Your task to perform on an android device: install app "LinkedIn" Image 0: 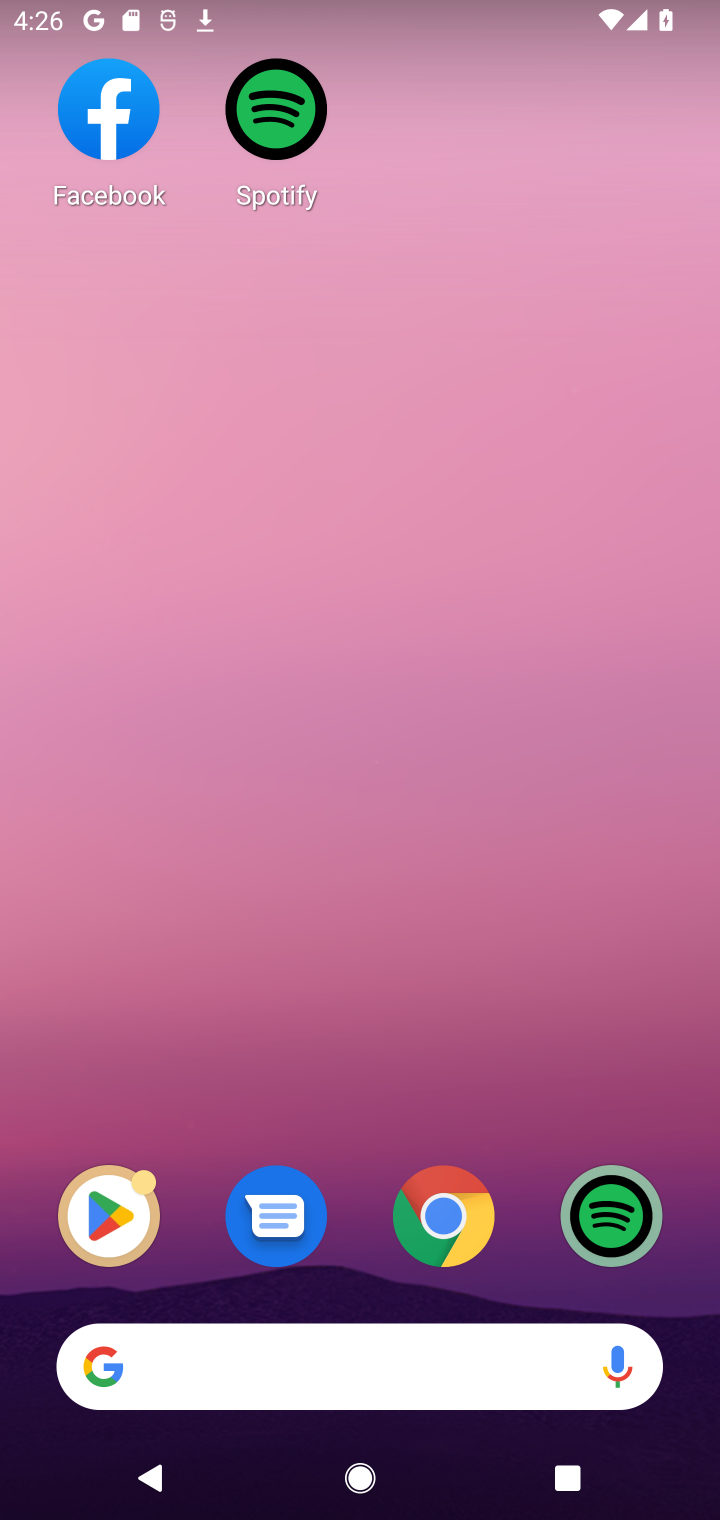
Step 0: click (106, 1225)
Your task to perform on an android device: install app "LinkedIn" Image 1: 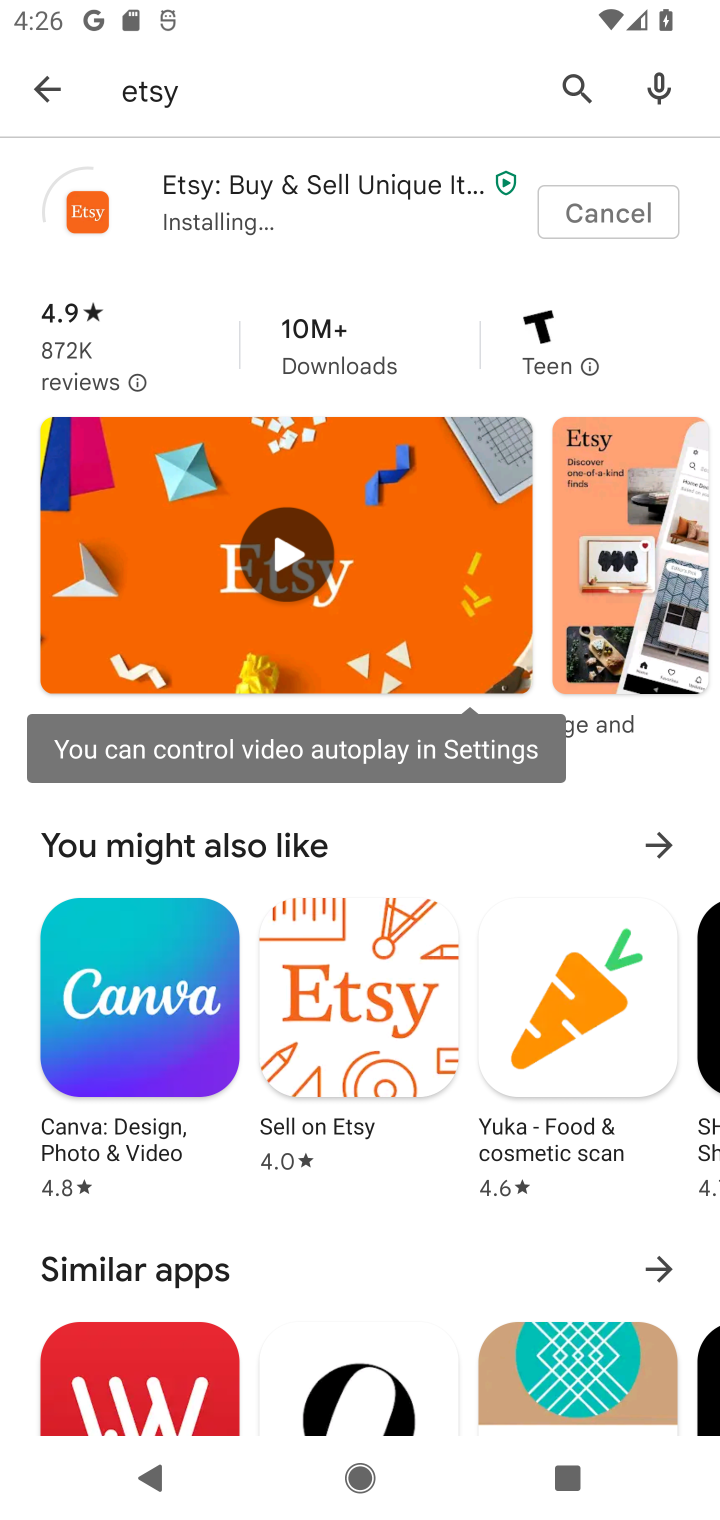
Step 1: click (562, 86)
Your task to perform on an android device: install app "LinkedIn" Image 2: 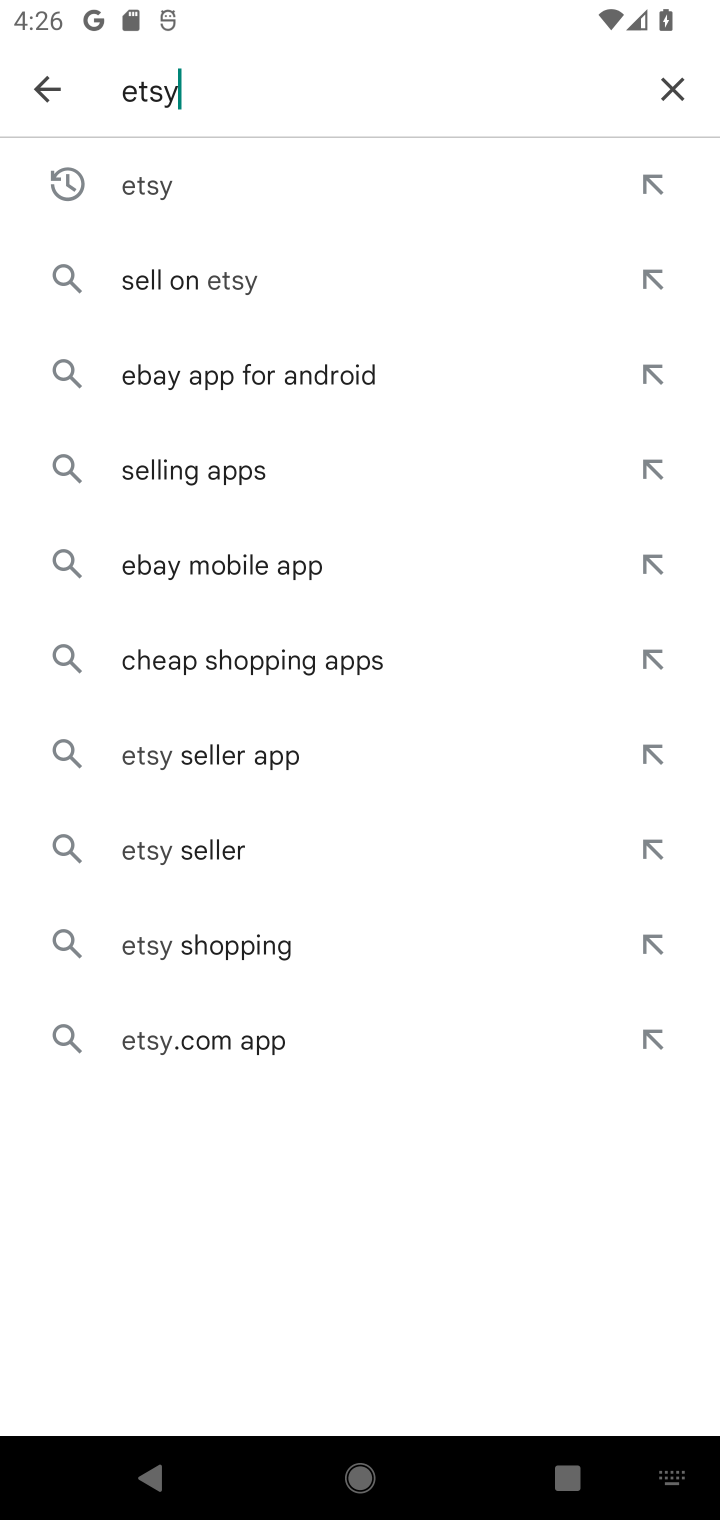
Step 2: click (661, 90)
Your task to perform on an android device: install app "LinkedIn" Image 3: 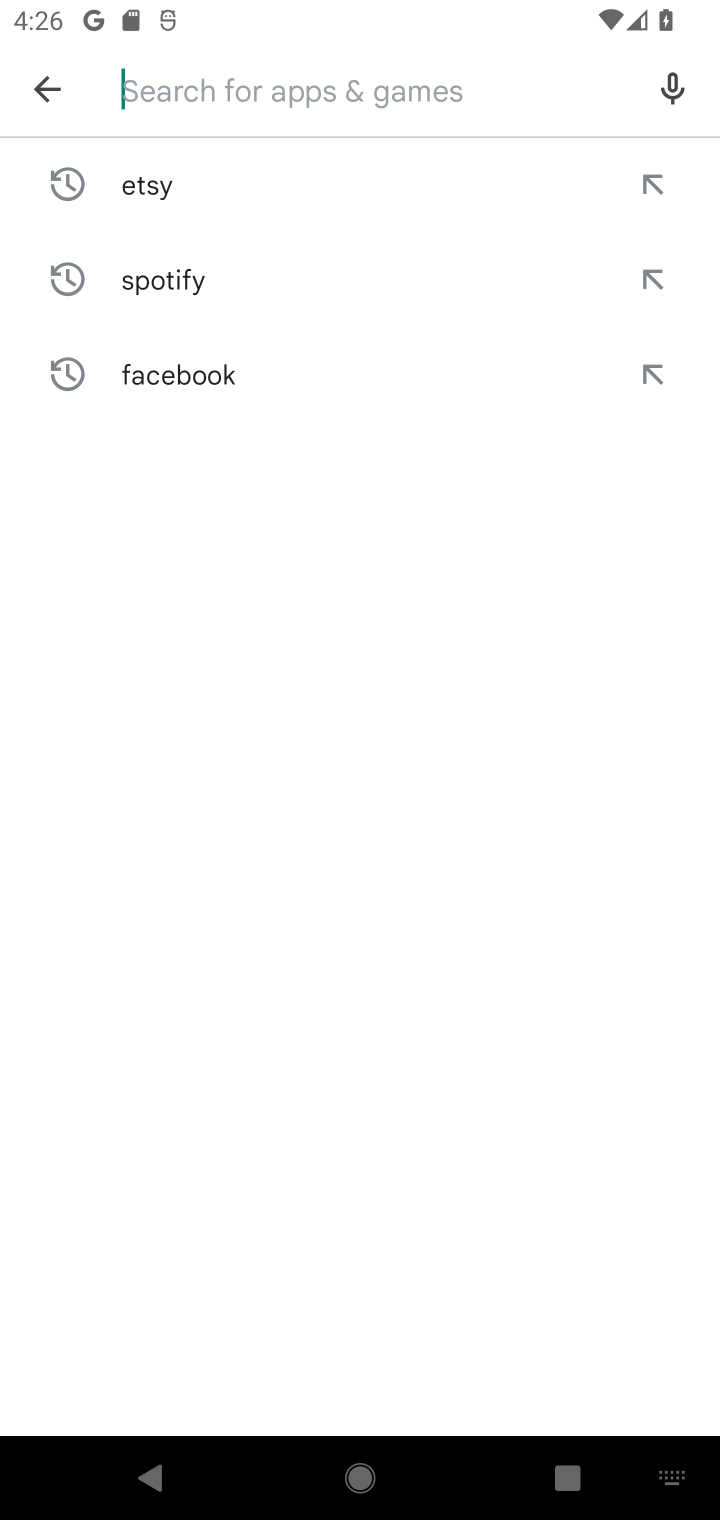
Step 3: type "linkedin"
Your task to perform on an android device: install app "LinkedIn" Image 4: 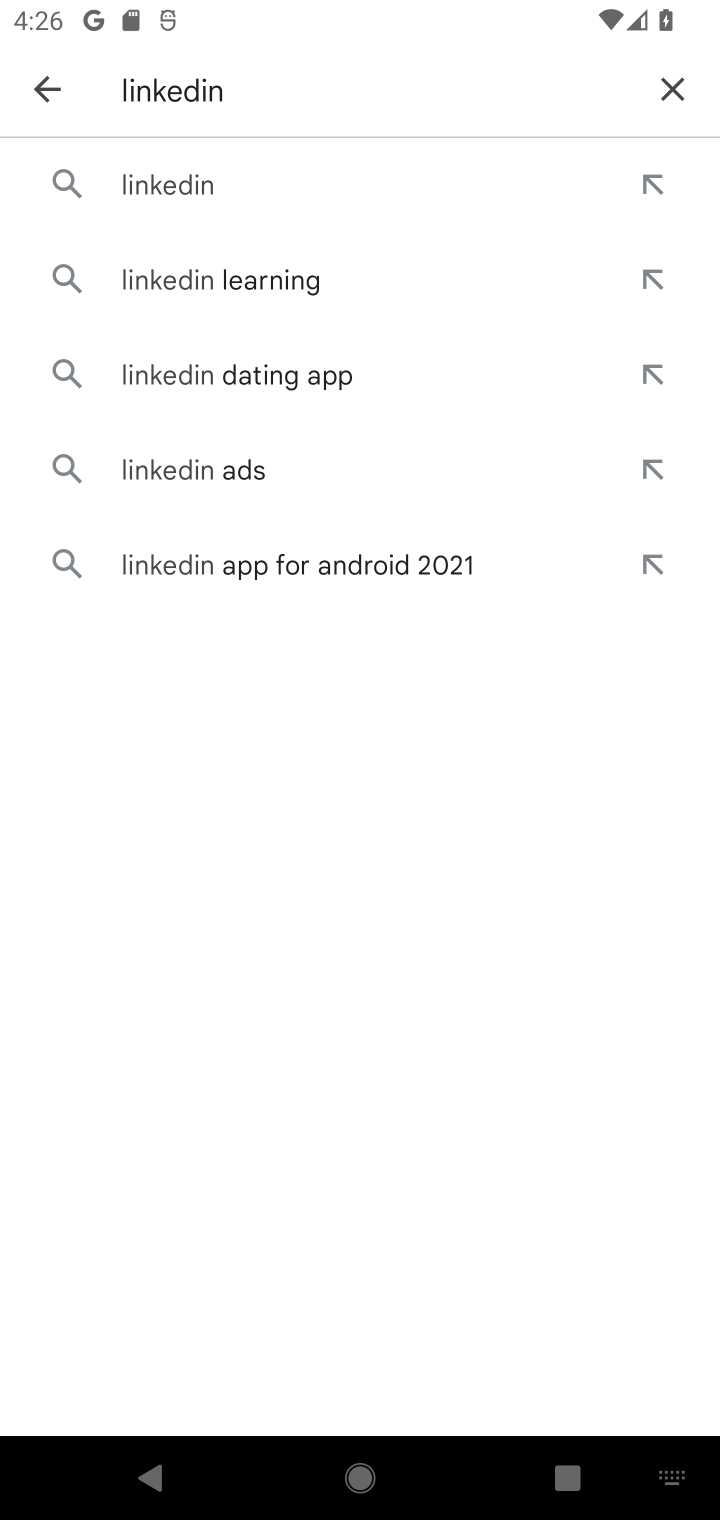
Step 4: click (330, 172)
Your task to perform on an android device: install app "LinkedIn" Image 5: 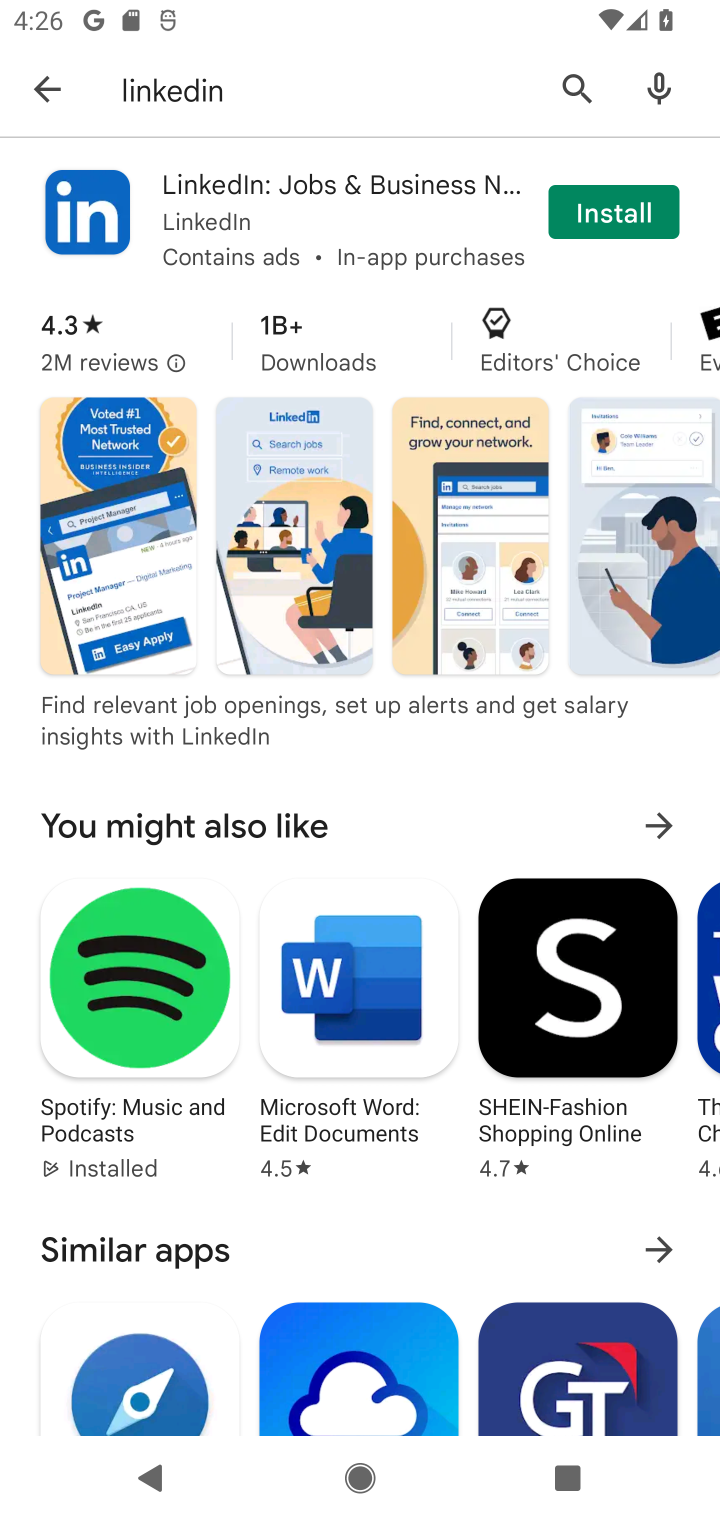
Step 5: click (678, 208)
Your task to perform on an android device: install app "LinkedIn" Image 6: 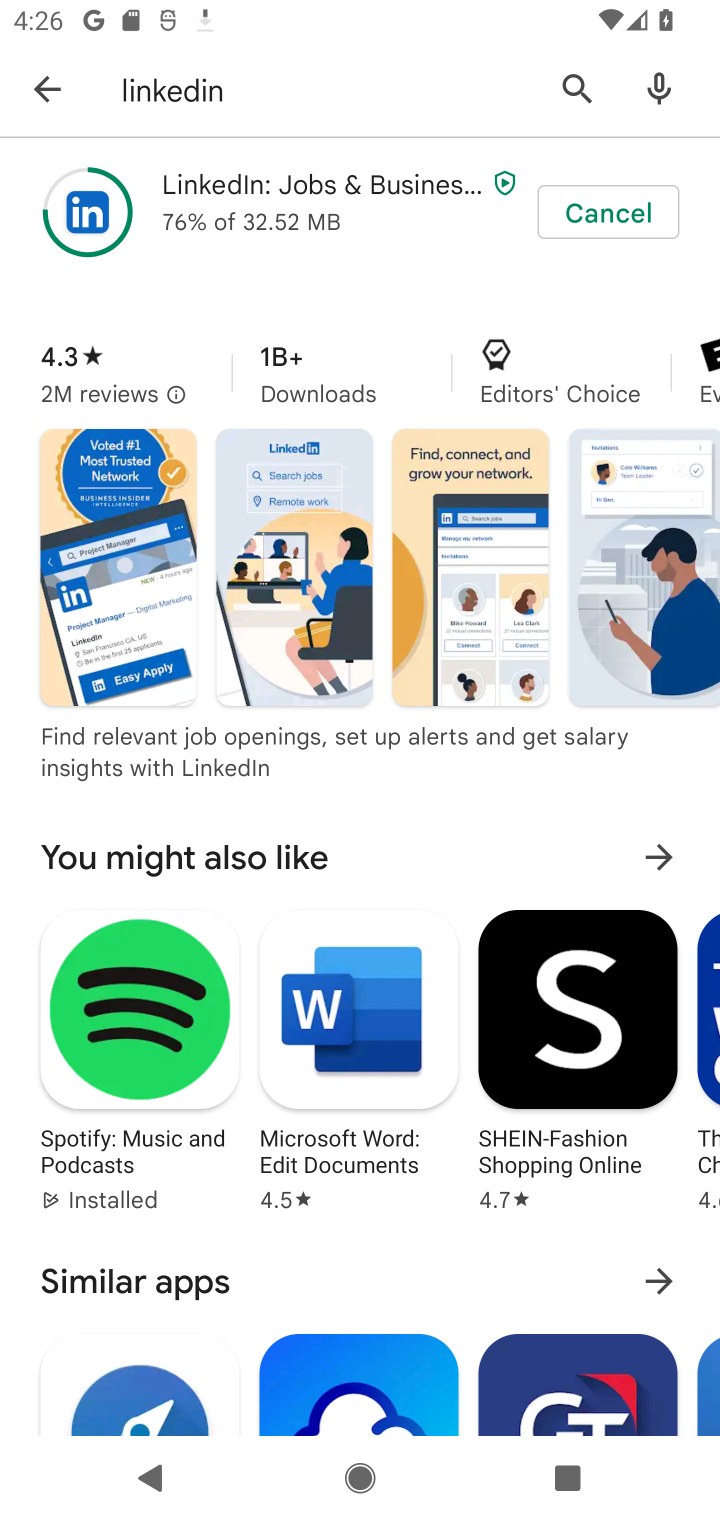
Step 6: task complete